Your task to perform on an android device: What's on my calendar today? Image 0: 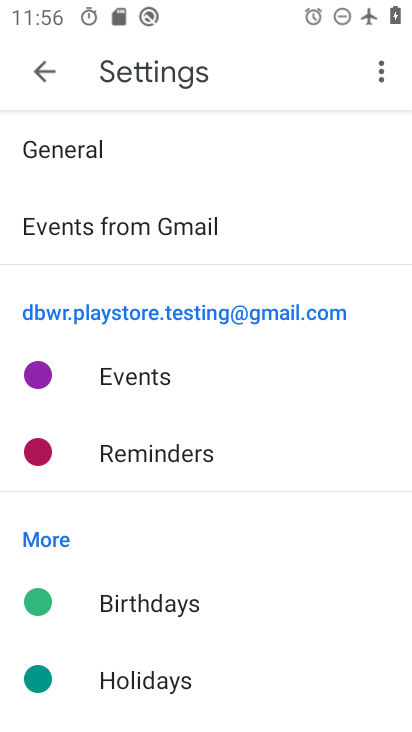
Step 0: press home button
Your task to perform on an android device: What's on my calendar today? Image 1: 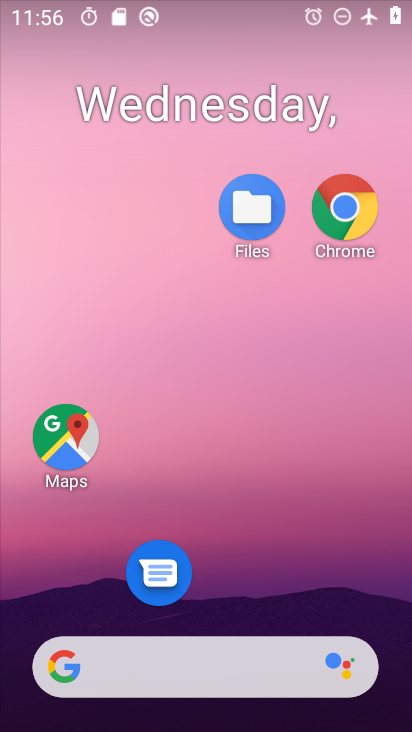
Step 1: drag from (170, 527) to (249, 5)
Your task to perform on an android device: What's on my calendar today? Image 2: 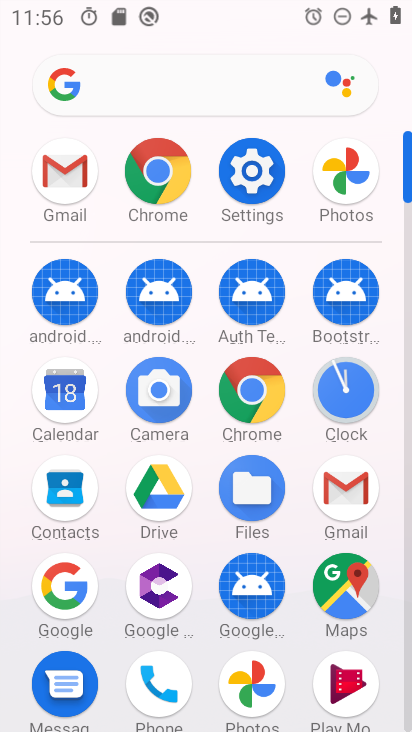
Step 2: click (88, 404)
Your task to perform on an android device: What's on my calendar today? Image 3: 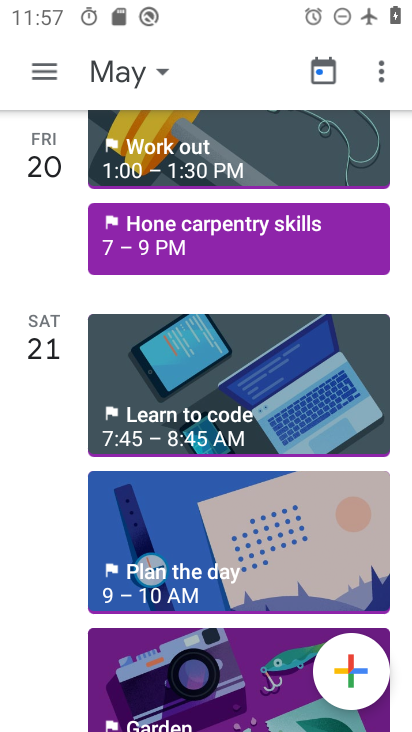
Step 3: task complete